Your task to perform on an android device: toggle priority inbox in the gmail app Image 0: 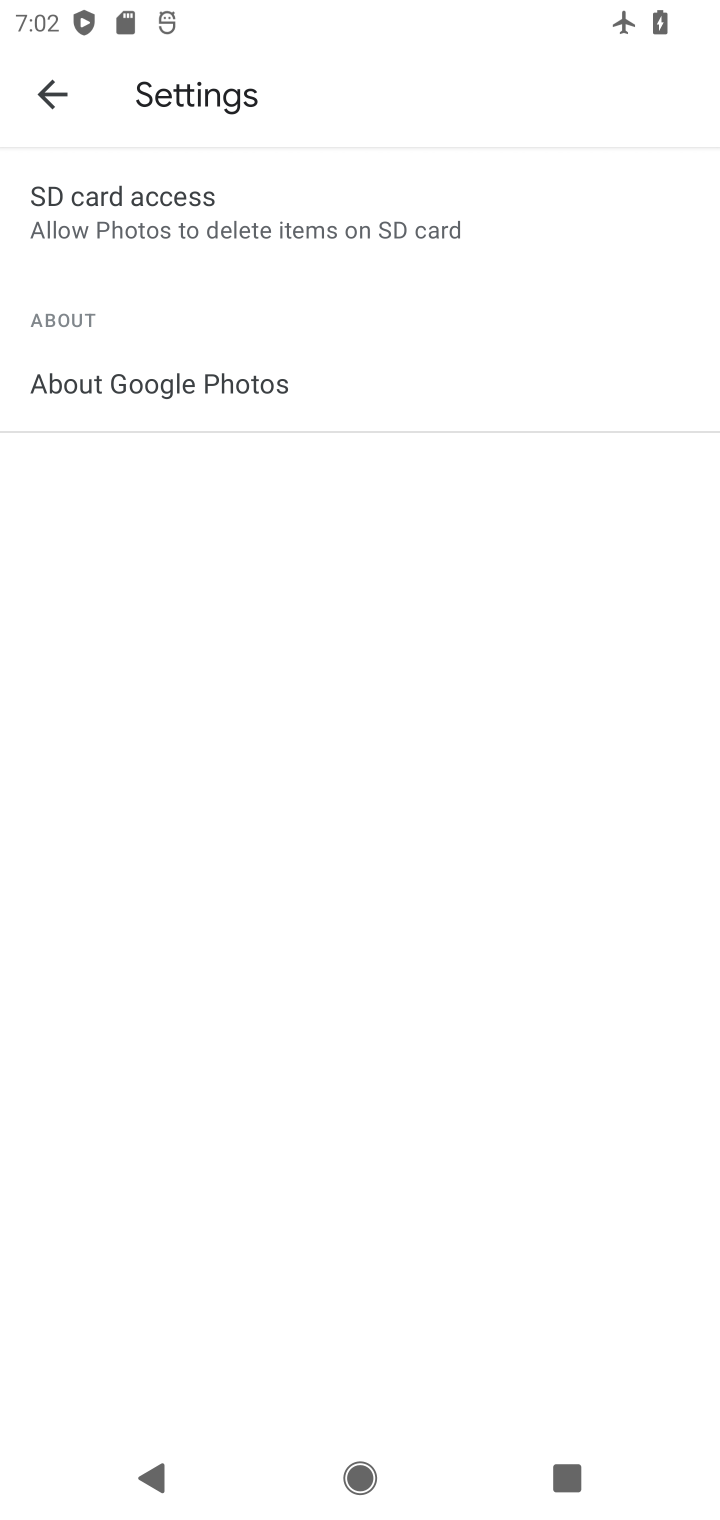
Step 0: press home button
Your task to perform on an android device: toggle priority inbox in the gmail app Image 1: 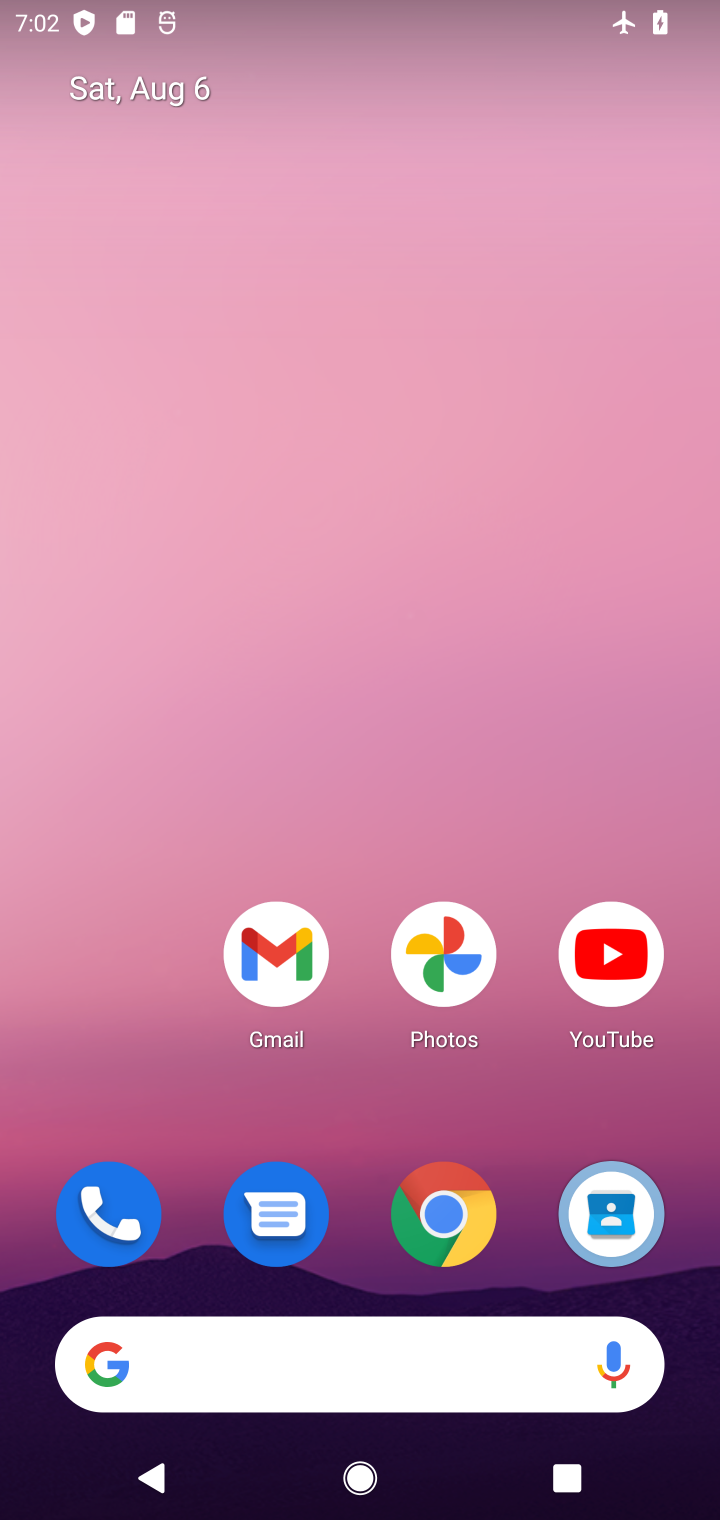
Step 1: click (281, 938)
Your task to perform on an android device: toggle priority inbox in the gmail app Image 2: 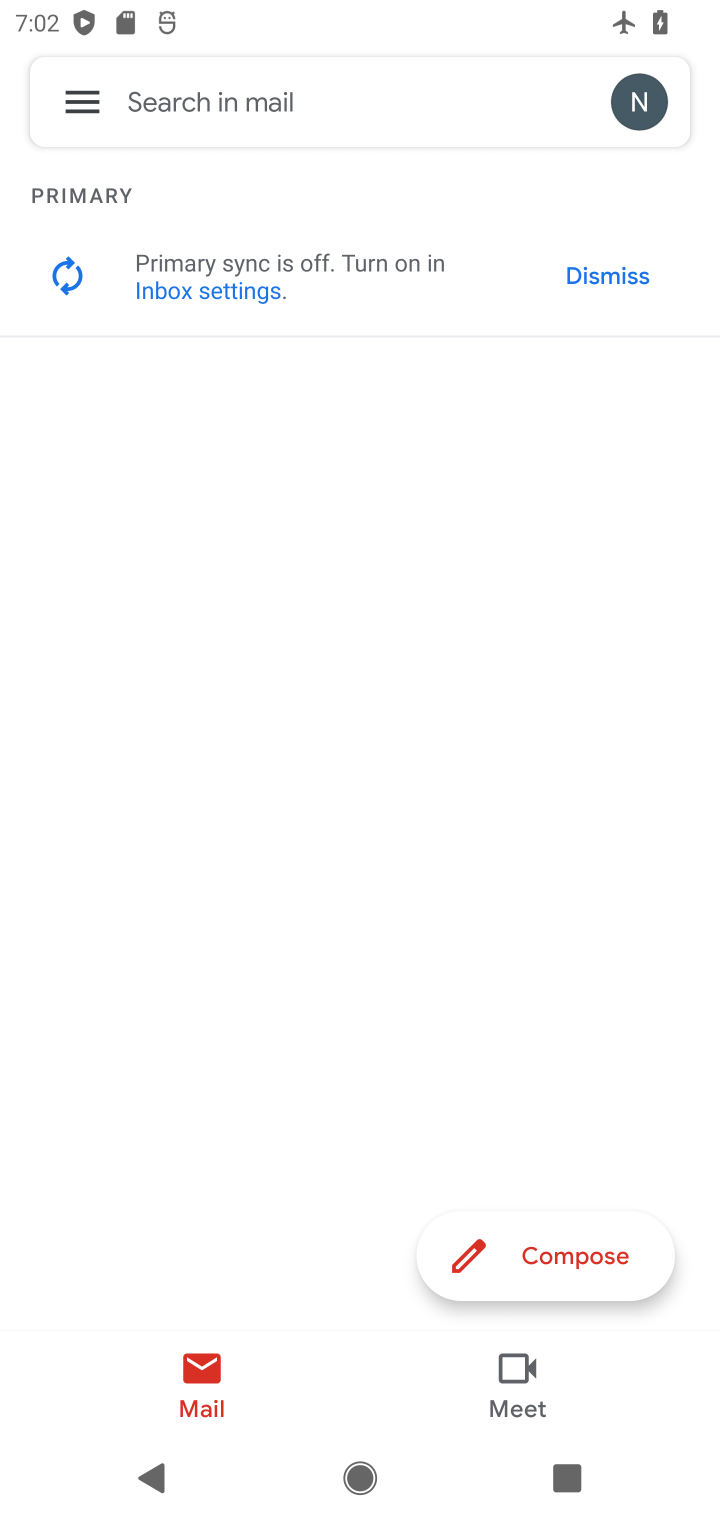
Step 2: click (101, 83)
Your task to perform on an android device: toggle priority inbox in the gmail app Image 3: 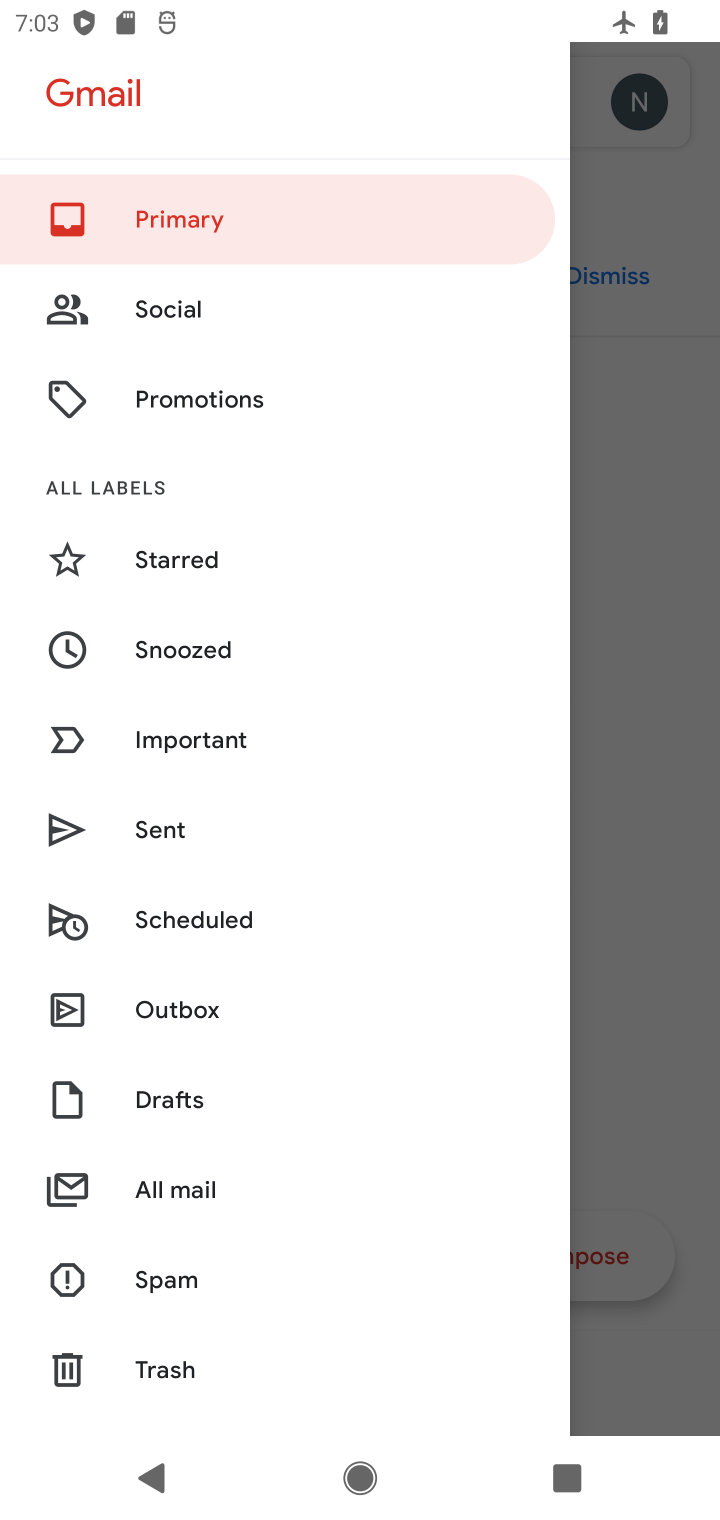
Step 3: drag from (167, 1285) to (305, 311)
Your task to perform on an android device: toggle priority inbox in the gmail app Image 4: 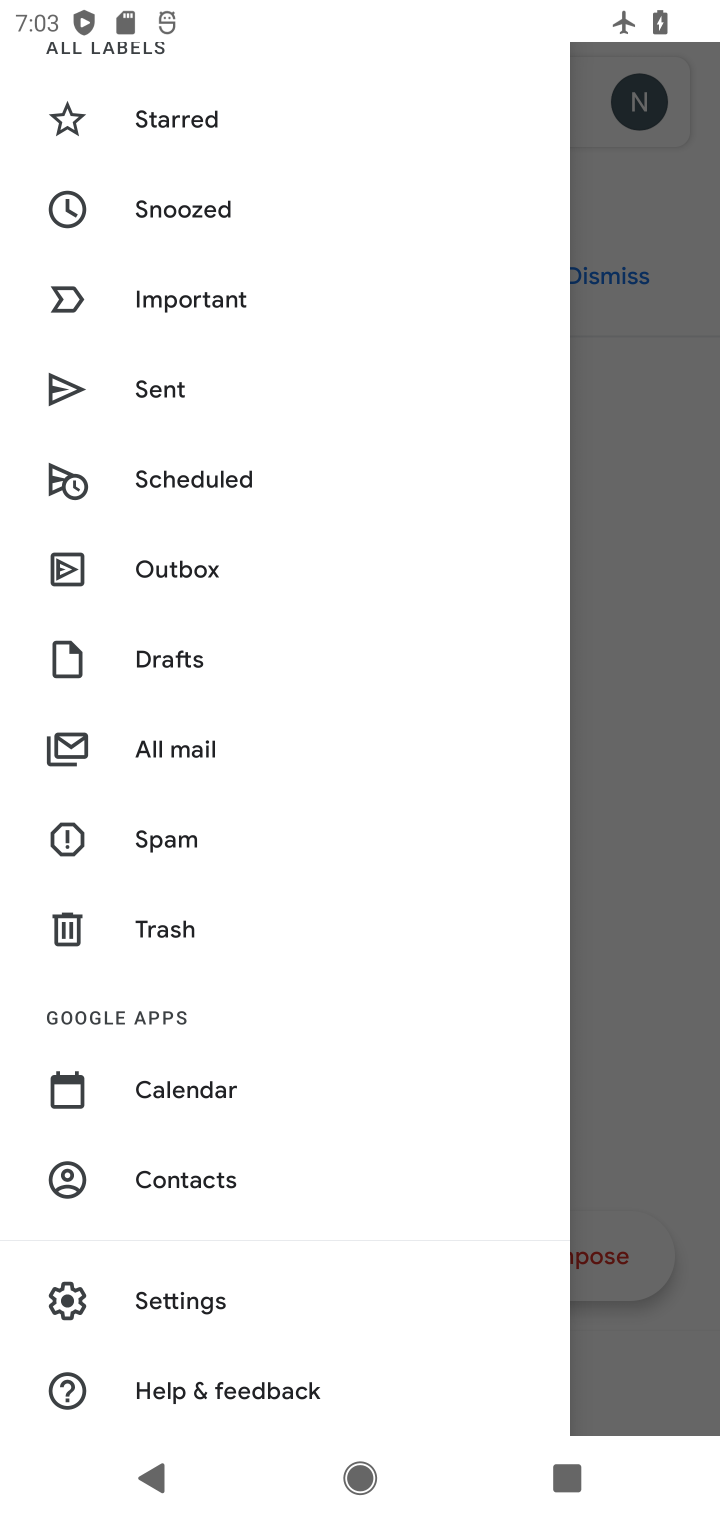
Step 4: click (146, 1311)
Your task to perform on an android device: toggle priority inbox in the gmail app Image 5: 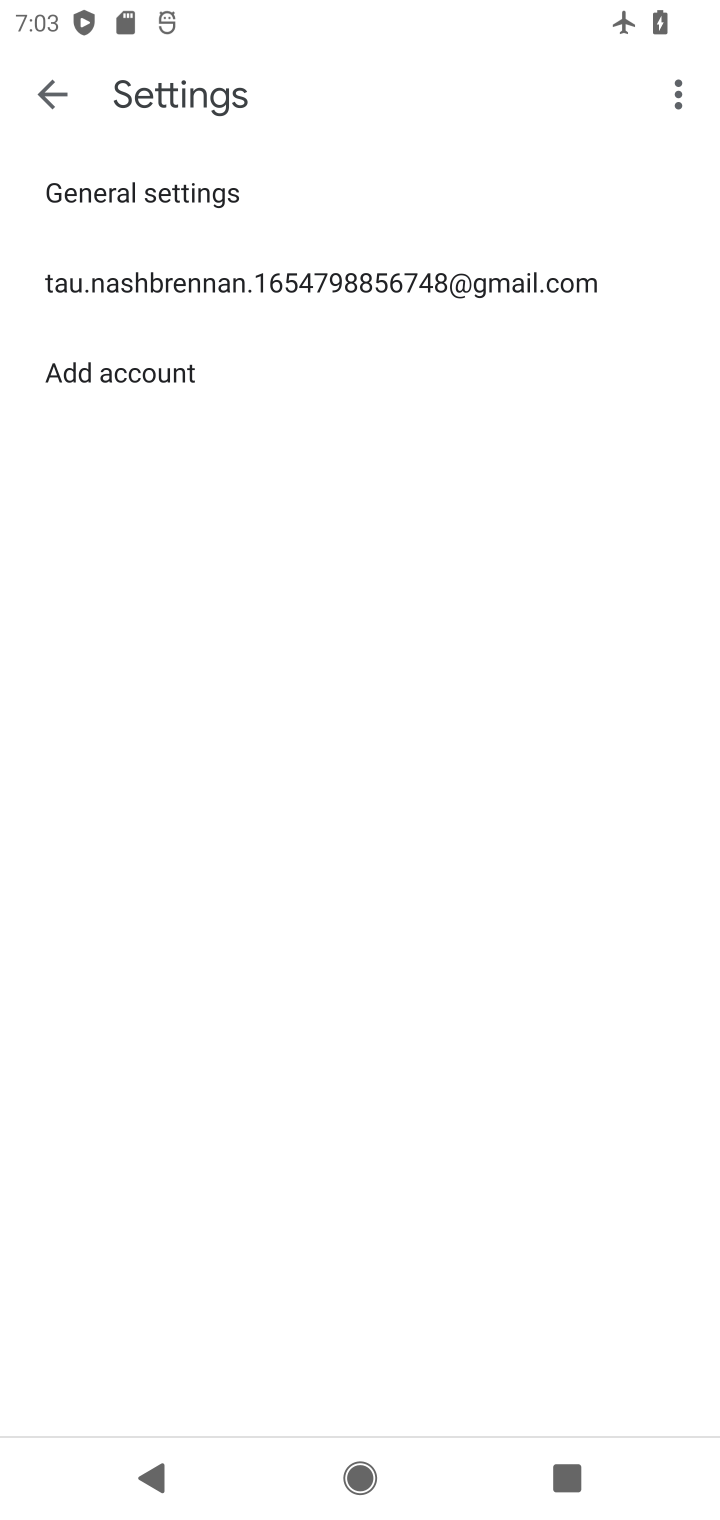
Step 5: click (178, 286)
Your task to perform on an android device: toggle priority inbox in the gmail app Image 6: 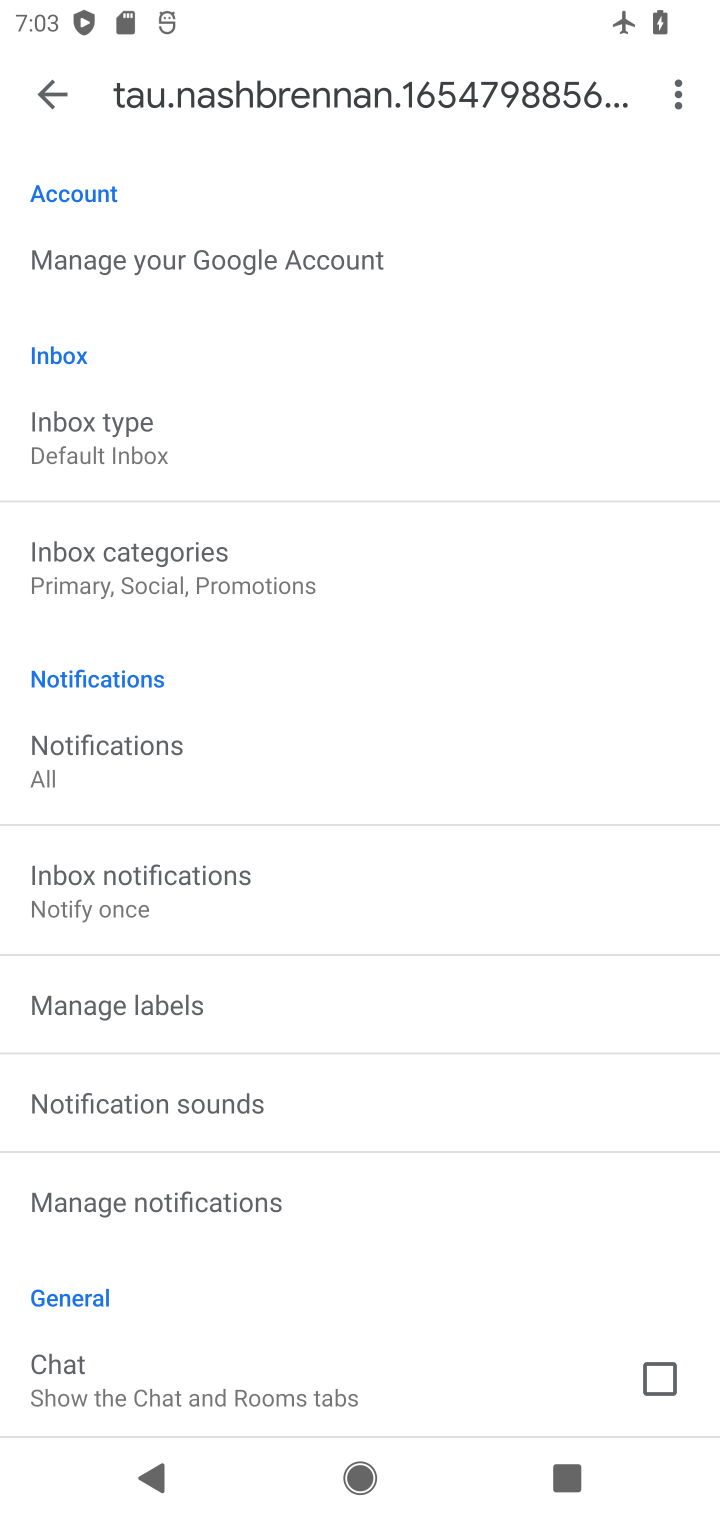
Step 6: click (168, 439)
Your task to perform on an android device: toggle priority inbox in the gmail app Image 7: 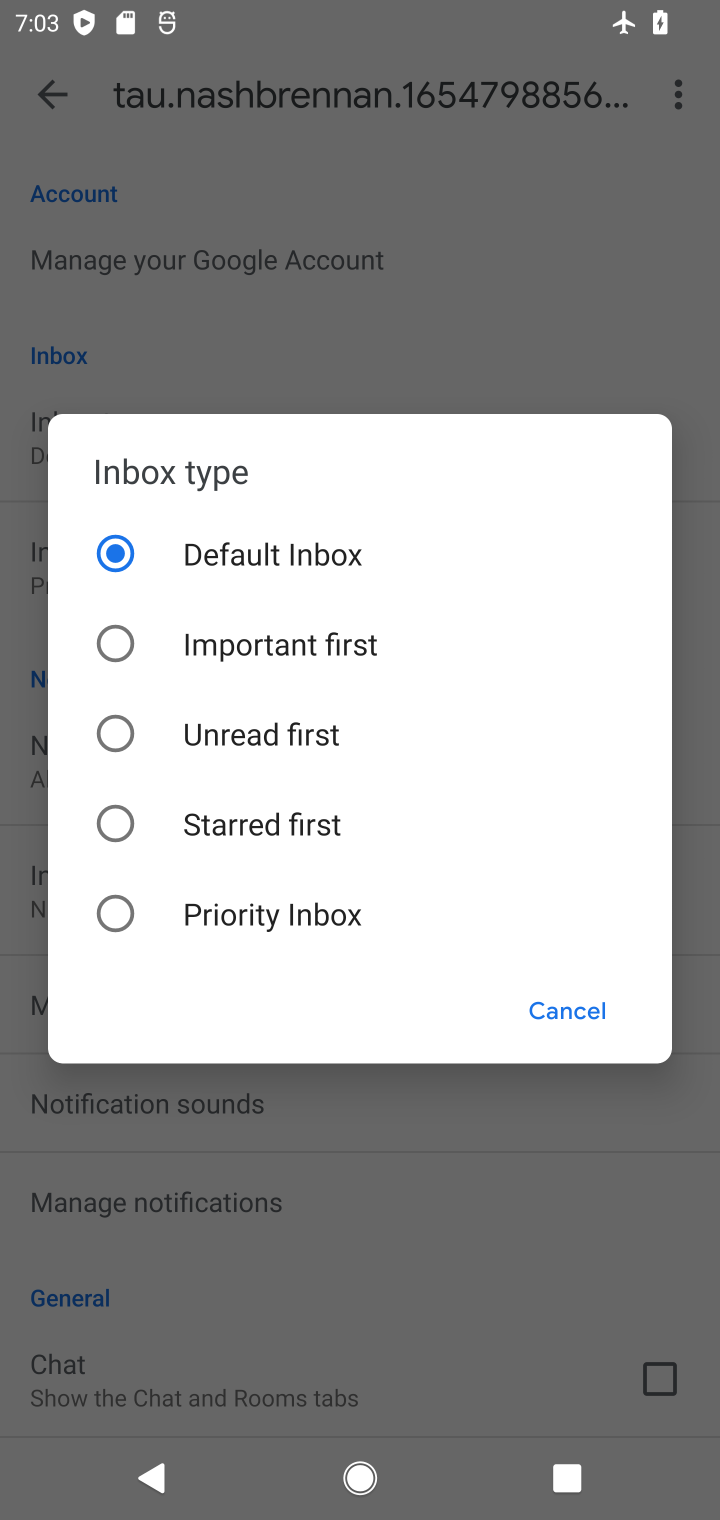
Step 7: click (204, 936)
Your task to perform on an android device: toggle priority inbox in the gmail app Image 8: 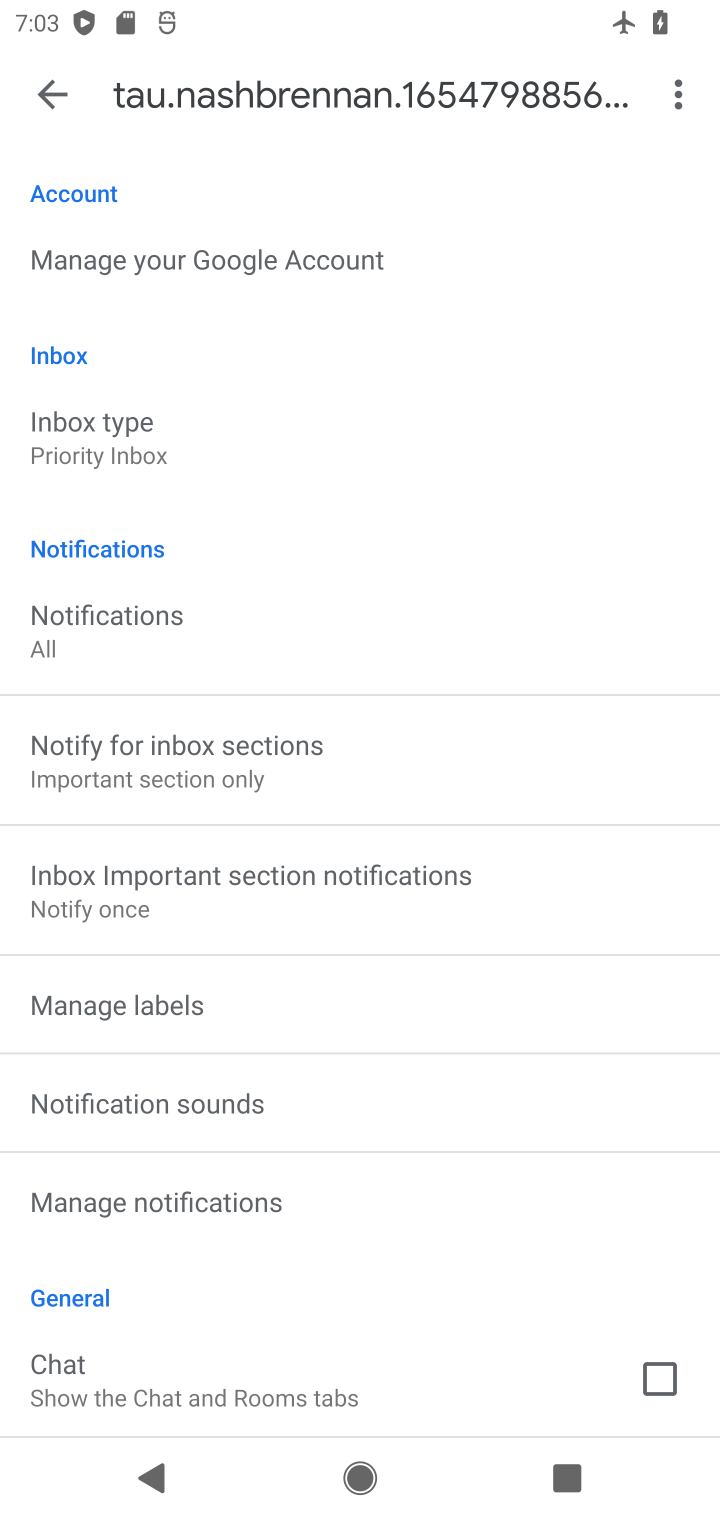
Step 8: task complete